Your task to perform on an android device: What is the news today? Image 0: 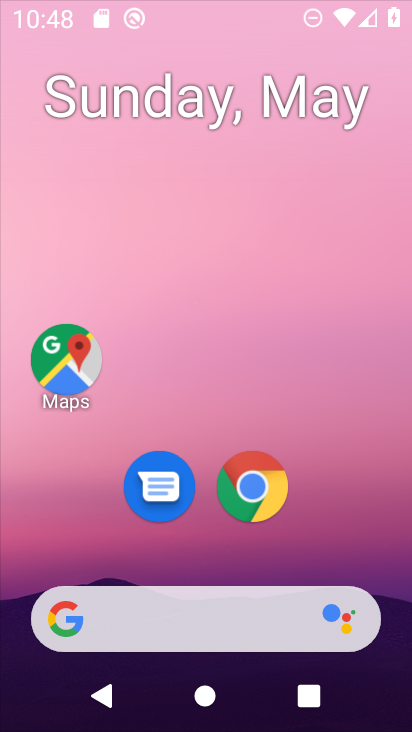
Step 0: click (335, 36)
Your task to perform on an android device: What is the news today? Image 1: 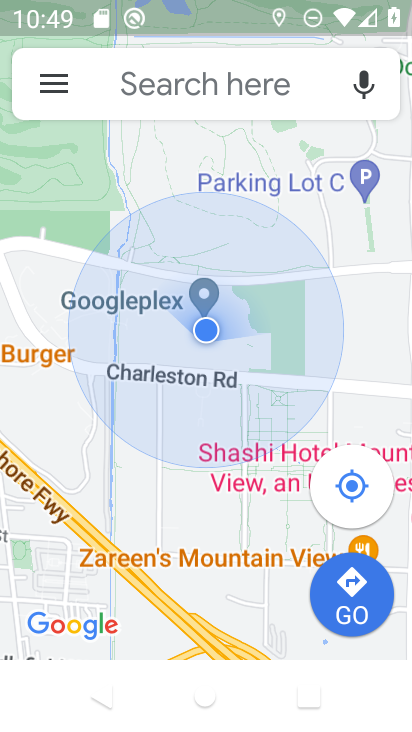
Step 1: press home button
Your task to perform on an android device: What is the news today? Image 2: 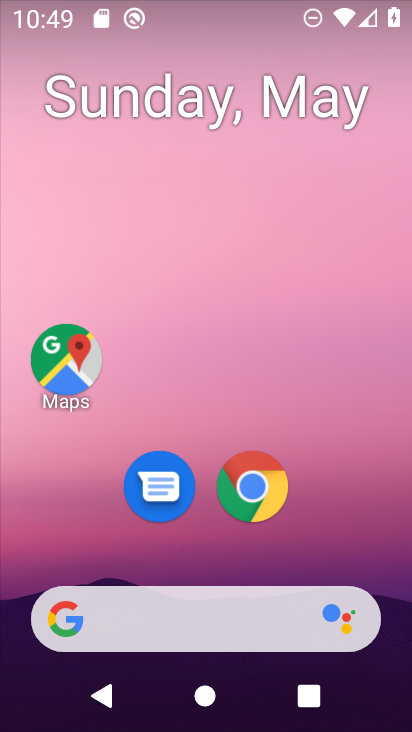
Step 2: drag from (382, 550) to (352, 140)
Your task to perform on an android device: What is the news today? Image 3: 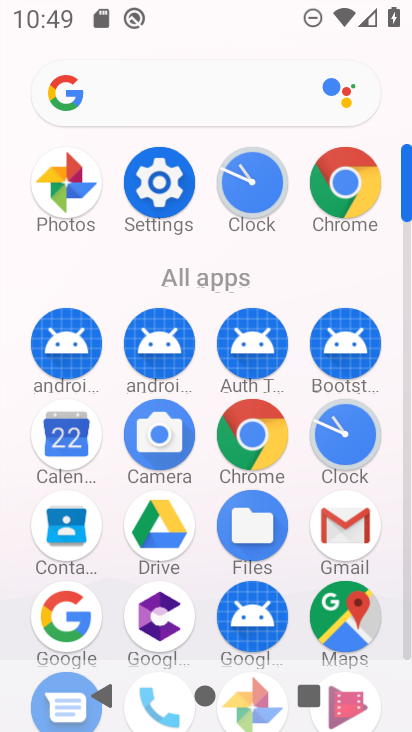
Step 3: click (356, 180)
Your task to perform on an android device: What is the news today? Image 4: 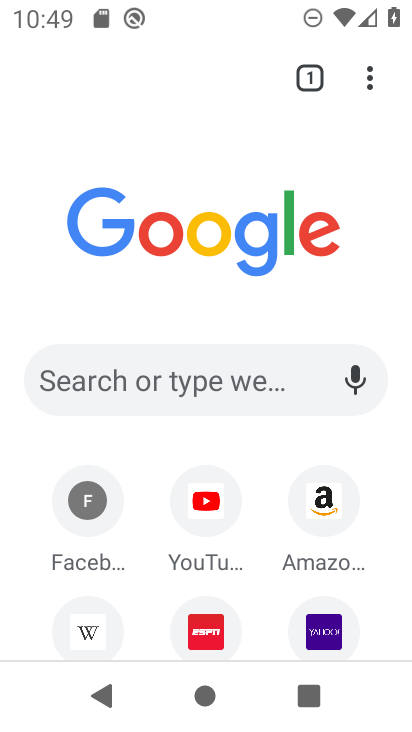
Step 4: drag from (215, 720) to (294, 682)
Your task to perform on an android device: What is the news today? Image 5: 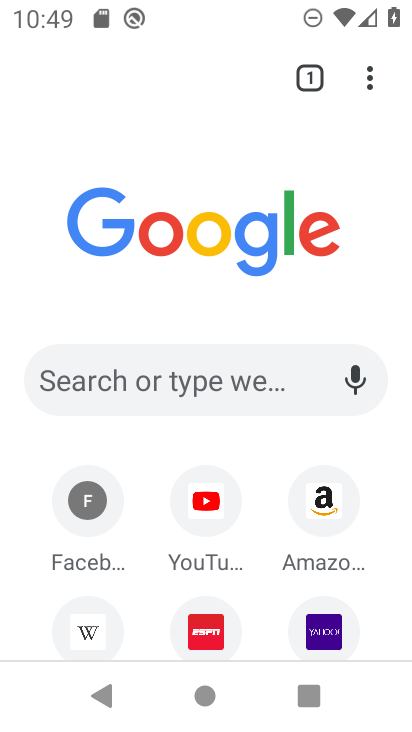
Step 5: click (226, 409)
Your task to perform on an android device: What is the news today? Image 6: 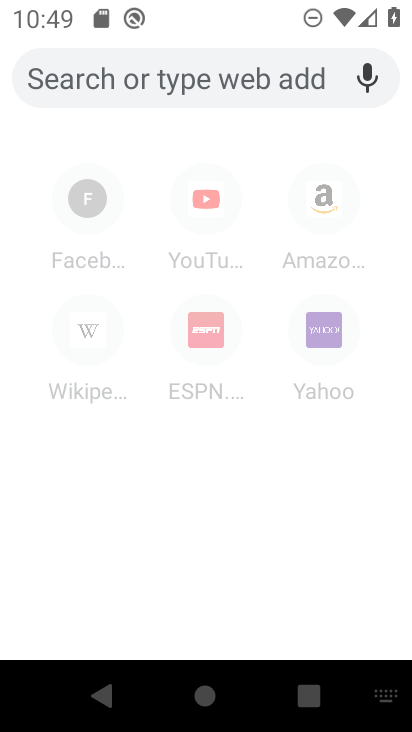
Step 6: type "What is the news today?"
Your task to perform on an android device: What is the news today? Image 7: 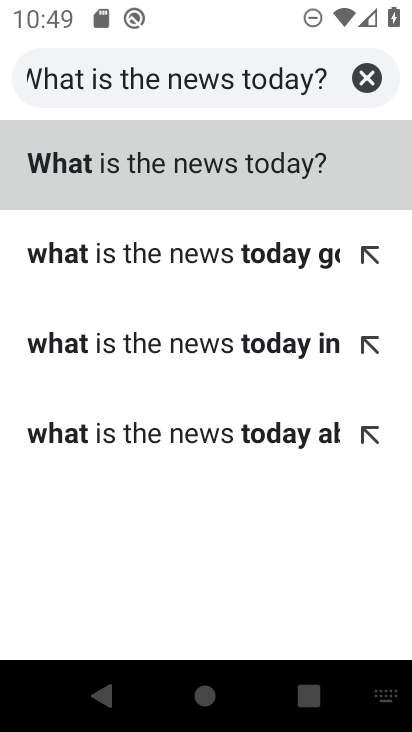
Step 7: click (292, 174)
Your task to perform on an android device: What is the news today? Image 8: 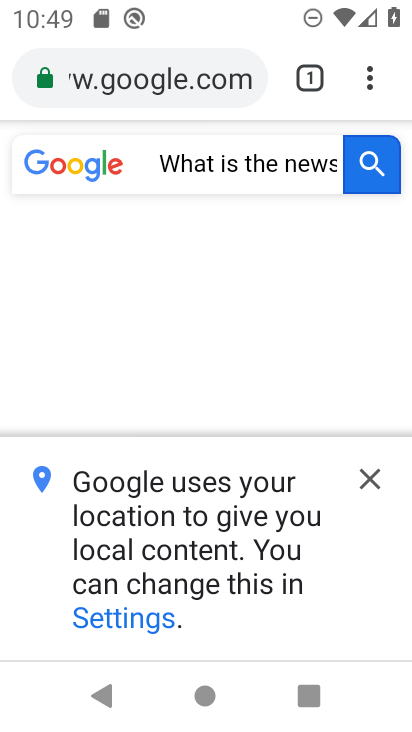
Step 8: click (376, 477)
Your task to perform on an android device: What is the news today? Image 9: 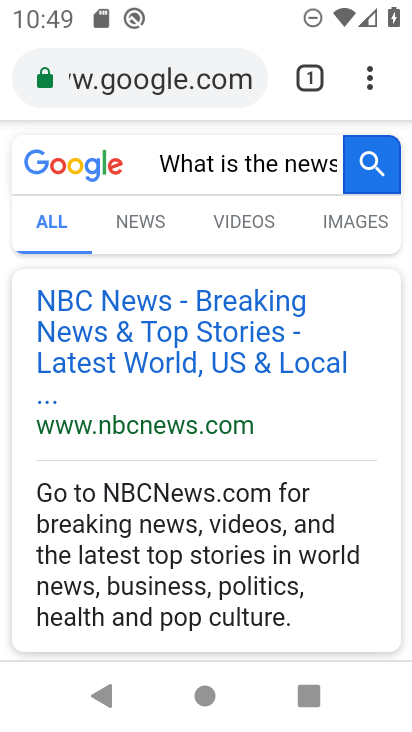
Step 9: click (273, 331)
Your task to perform on an android device: What is the news today? Image 10: 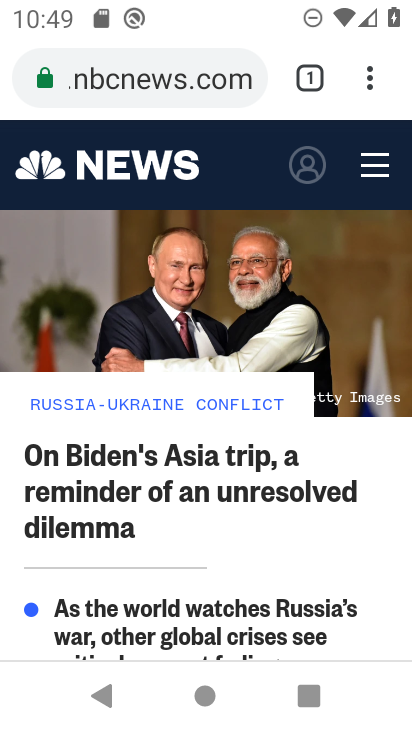
Step 10: task complete